Your task to perform on an android device: Open display settings Image 0: 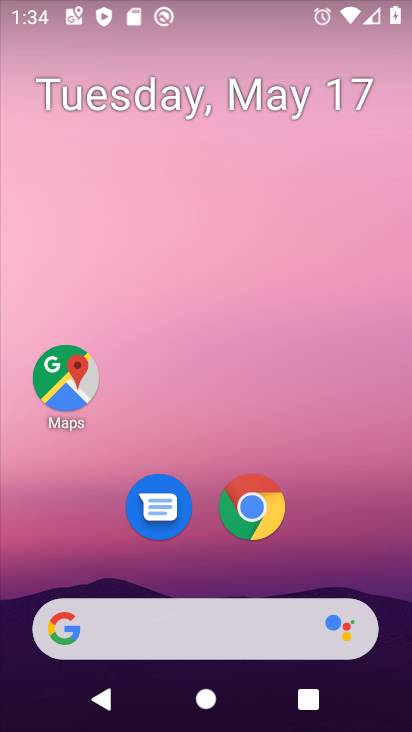
Step 0: drag from (285, 549) to (291, 219)
Your task to perform on an android device: Open display settings Image 1: 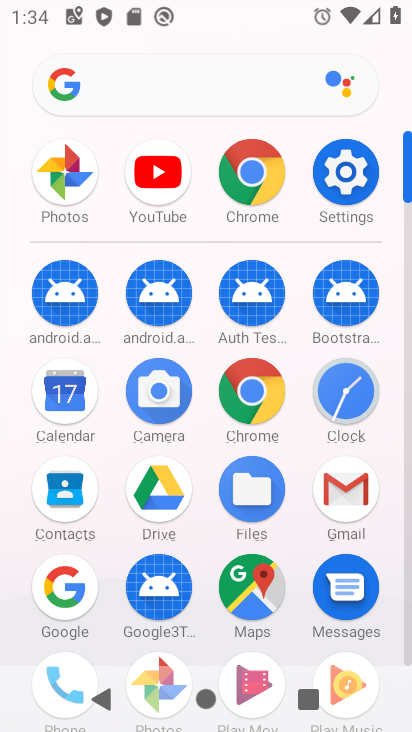
Step 1: click (337, 168)
Your task to perform on an android device: Open display settings Image 2: 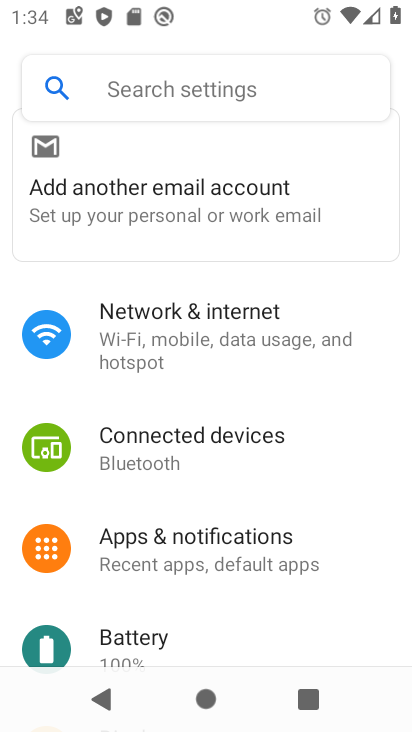
Step 2: drag from (190, 607) to (264, 237)
Your task to perform on an android device: Open display settings Image 3: 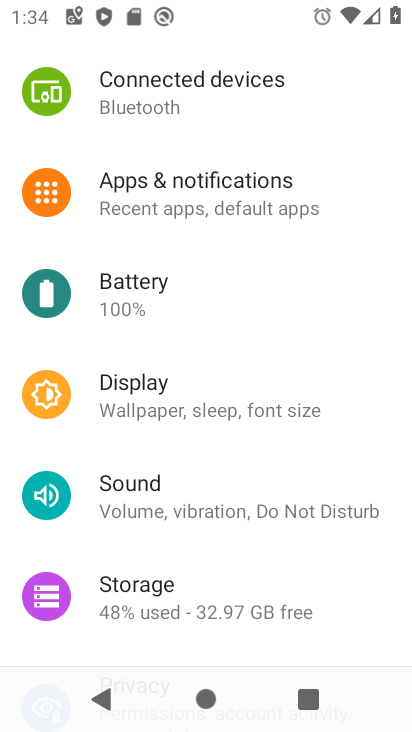
Step 3: click (163, 393)
Your task to perform on an android device: Open display settings Image 4: 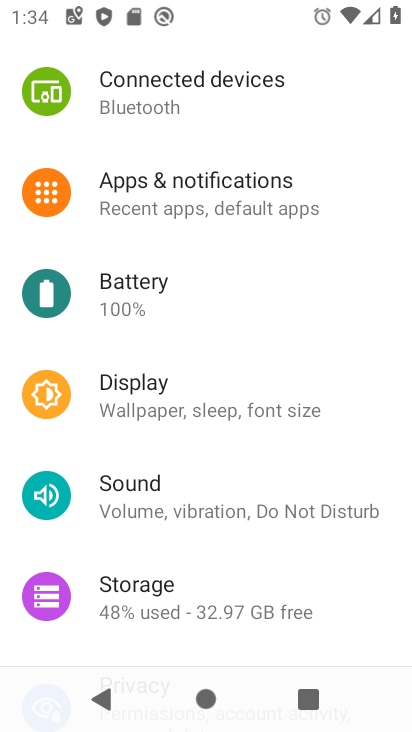
Step 4: click (163, 392)
Your task to perform on an android device: Open display settings Image 5: 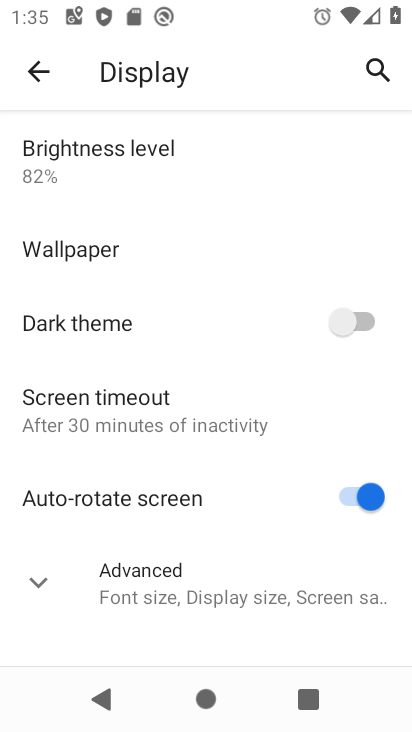
Step 5: task complete